Your task to perform on an android device: delete the emails in spam in the gmail app Image 0: 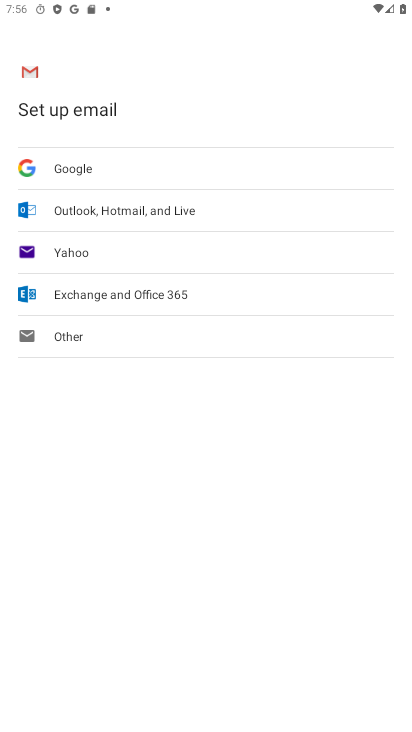
Step 0: press home button
Your task to perform on an android device: delete the emails in spam in the gmail app Image 1: 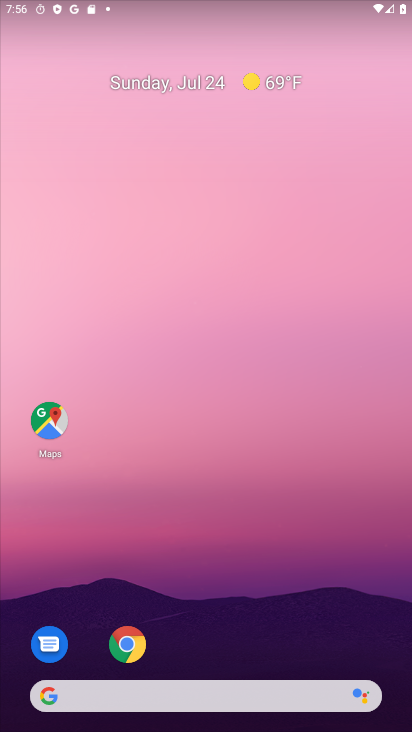
Step 1: drag from (127, 667) to (127, 339)
Your task to perform on an android device: delete the emails in spam in the gmail app Image 2: 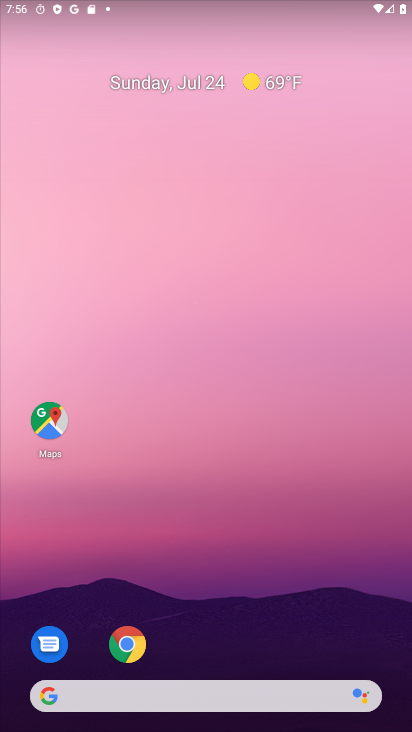
Step 2: drag from (218, 673) to (200, 262)
Your task to perform on an android device: delete the emails in spam in the gmail app Image 3: 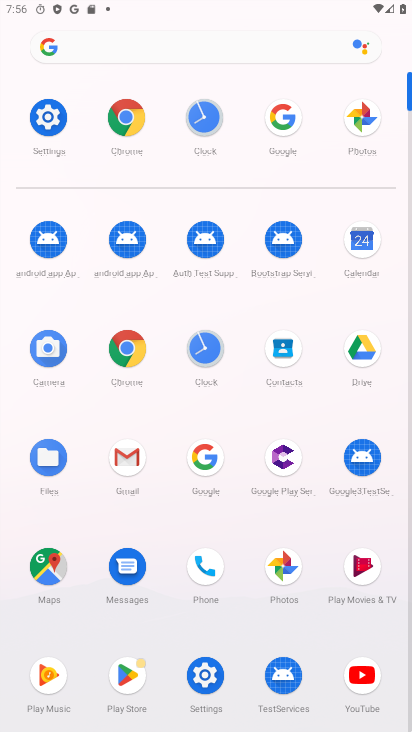
Step 3: click (119, 457)
Your task to perform on an android device: delete the emails in spam in the gmail app Image 4: 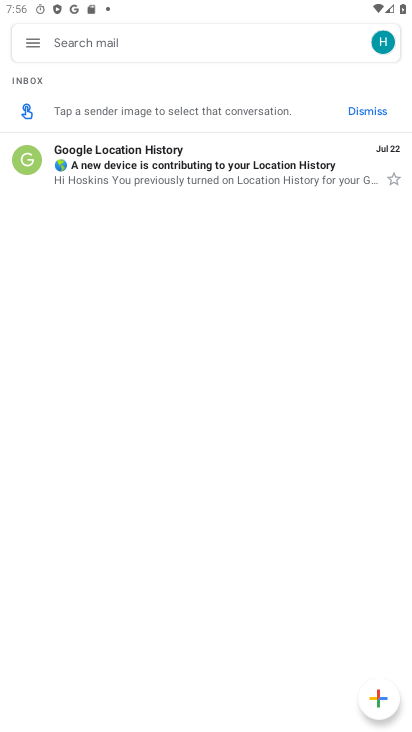
Step 4: click (30, 47)
Your task to perform on an android device: delete the emails in spam in the gmail app Image 5: 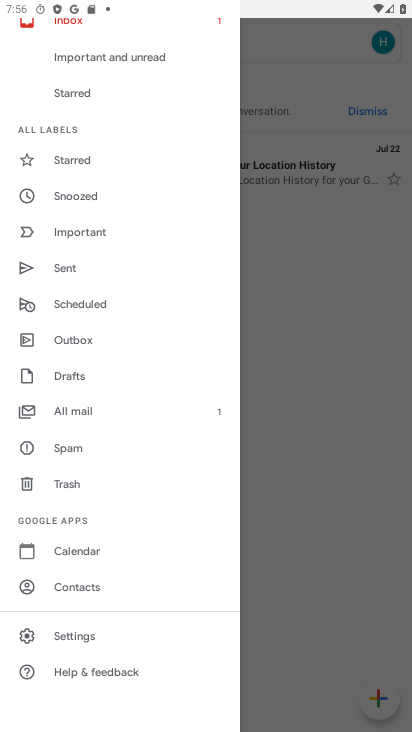
Step 5: click (91, 445)
Your task to perform on an android device: delete the emails in spam in the gmail app Image 6: 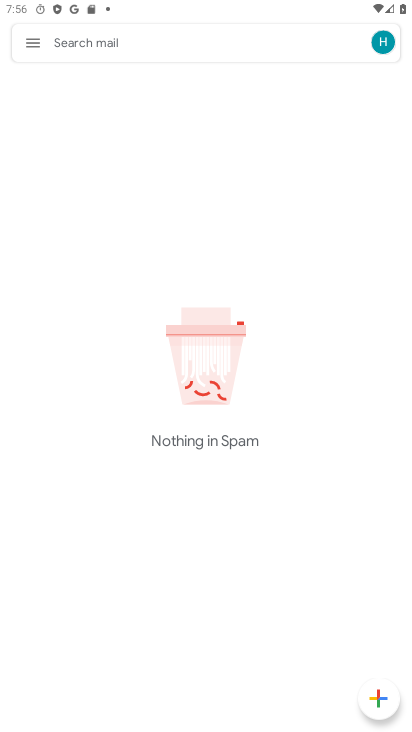
Step 6: task complete